Your task to perform on an android device: turn on bluetooth scan Image 0: 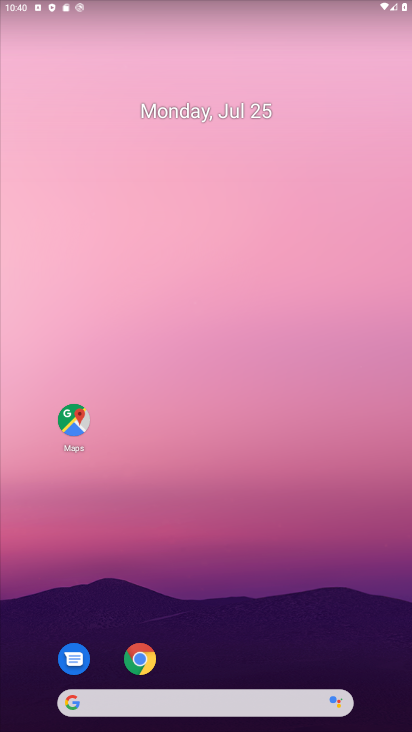
Step 0: drag from (227, 654) to (255, 156)
Your task to perform on an android device: turn on bluetooth scan Image 1: 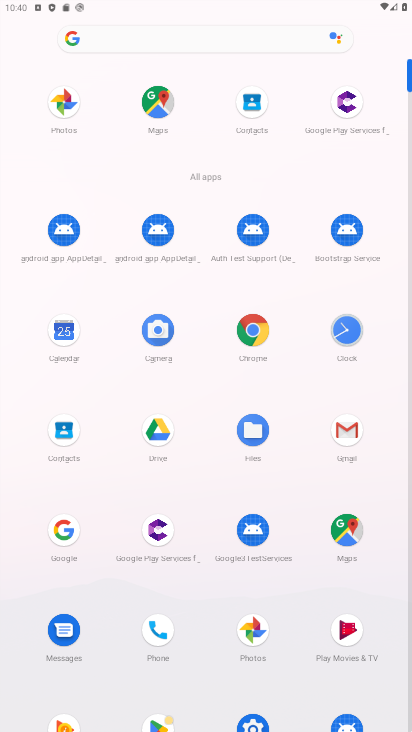
Step 1: drag from (210, 652) to (258, 180)
Your task to perform on an android device: turn on bluetooth scan Image 2: 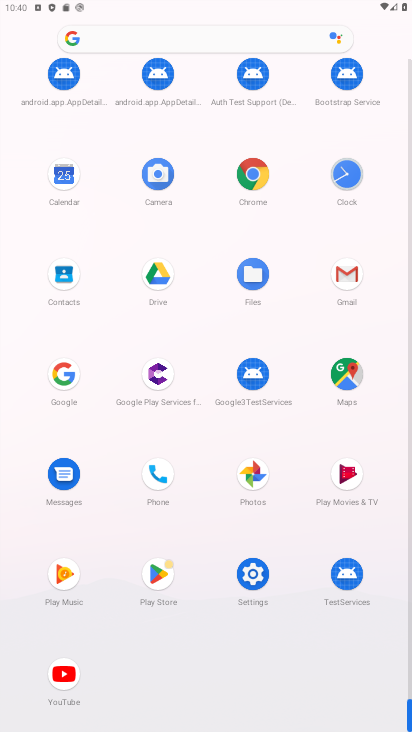
Step 2: click (253, 584)
Your task to perform on an android device: turn on bluetooth scan Image 3: 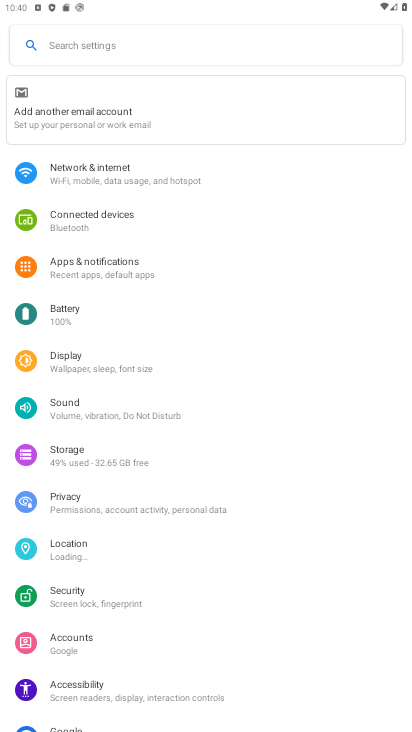
Step 3: click (113, 565)
Your task to perform on an android device: turn on bluetooth scan Image 4: 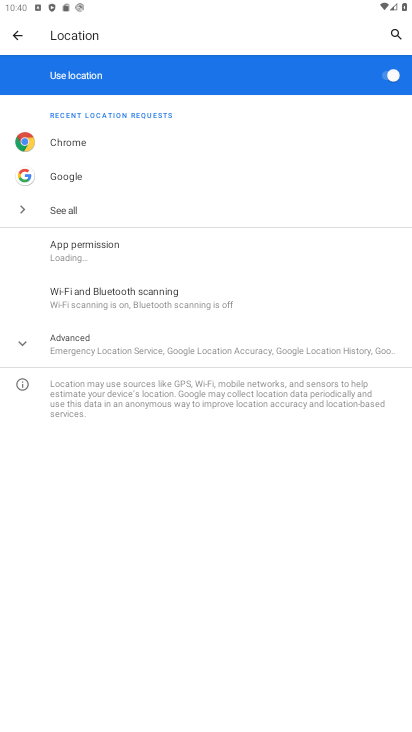
Step 4: click (203, 291)
Your task to perform on an android device: turn on bluetooth scan Image 5: 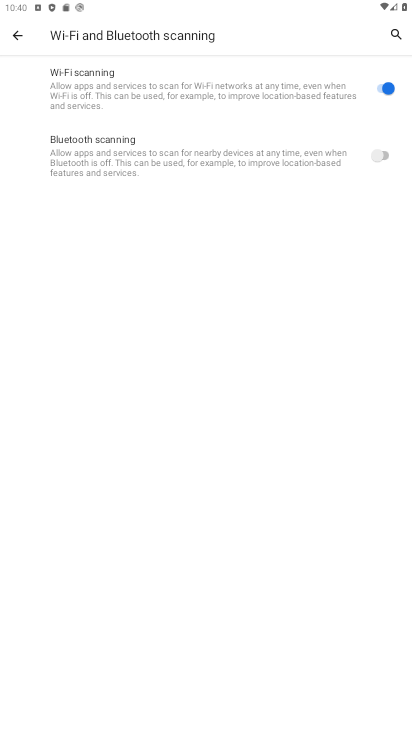
Step 5: click (379, 161)
Your task to perform on an android device: turn on bluetooth scan Image 6: 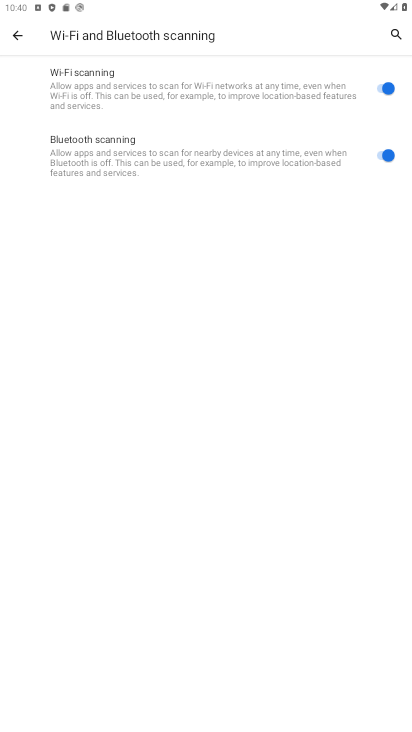
Step 6: task complete